Your task to perform on an android device: Open location settings Image 0: 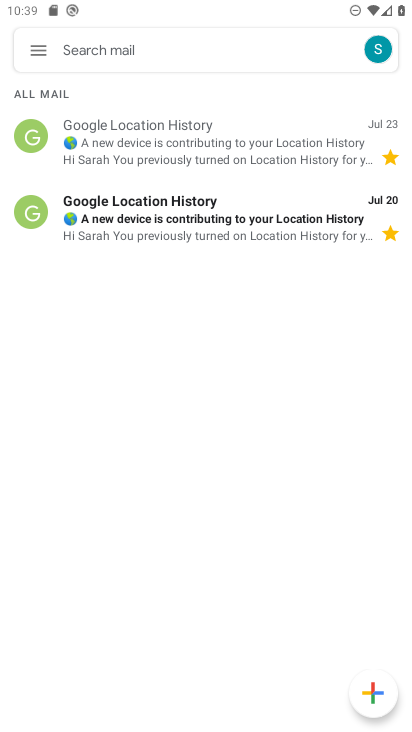
Step 0: press home button
Your task to perform on an android device: Open location settings Image 1: 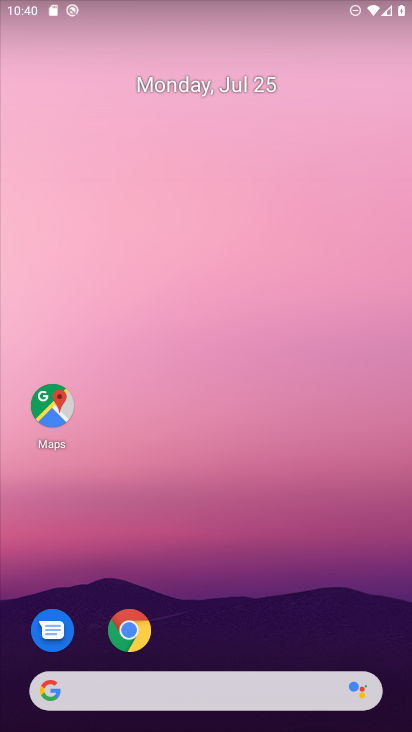
Step 1: drag from (242, 585) to (191, 131)
Your task to perform on an android device: Open location settings Image 2: 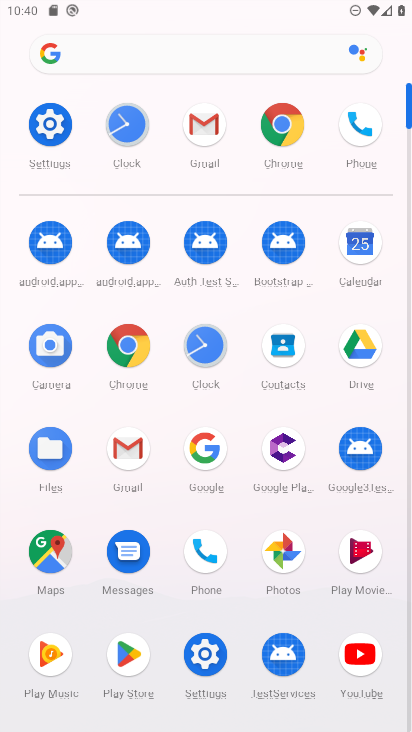
Step 2: click (51, 129)
Your task to perform on an android device: Open location settings Image 3: 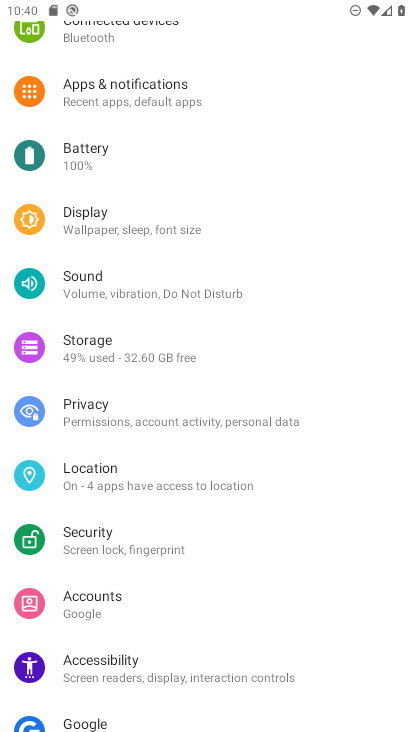
Step 3: click (129, 475)
Your task to perform on an android device: Open location settings Image 4: 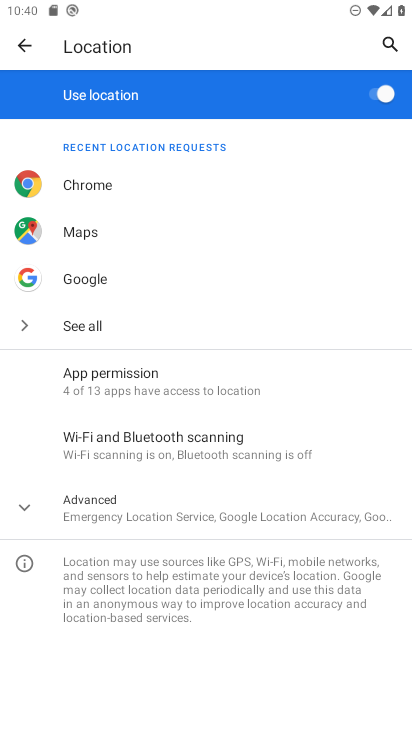
Step 4: task complete